Your task to perform on an android device: Check the settings for the Spotify app Image 0: 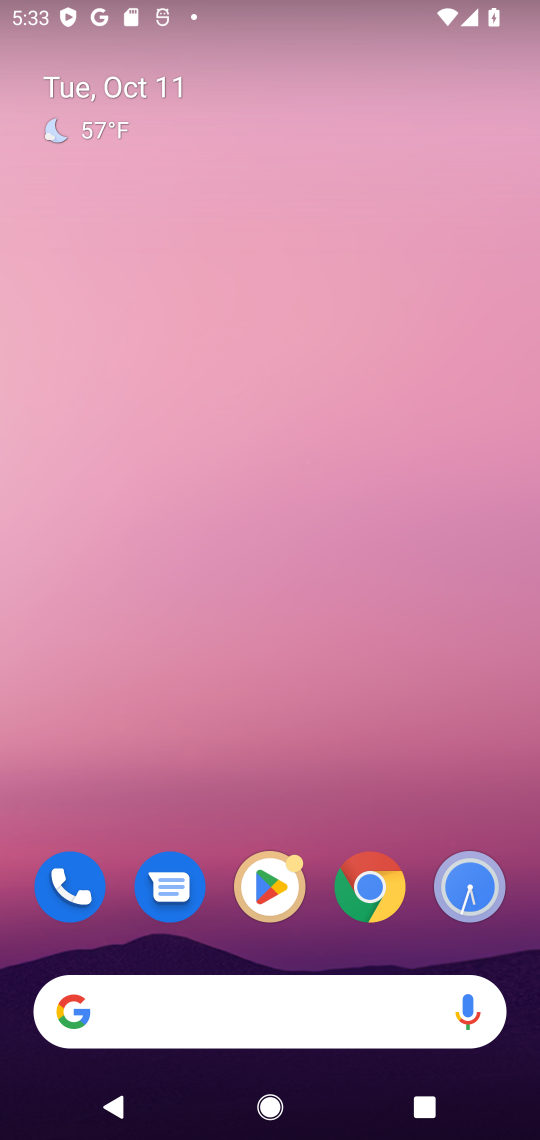
Step 0: drag from (199, 1112) to (194, 504)
Your task to perform on an android device: Check the settings for the Spotify app Image 1: 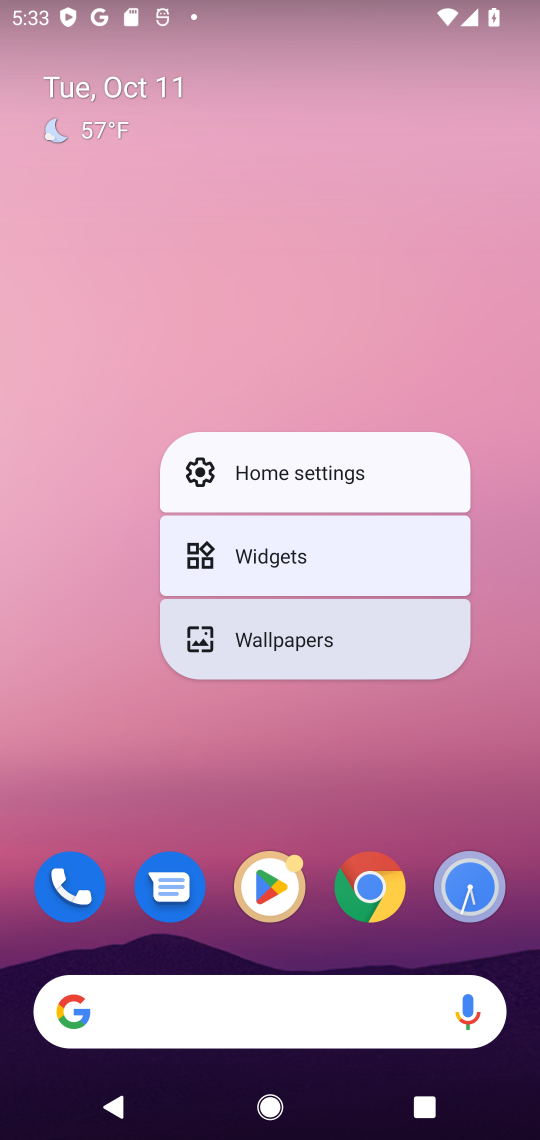
Step 1: click (135, 392)
Your task to perform on an android device: Check the settings for the Spotify app Image 2: 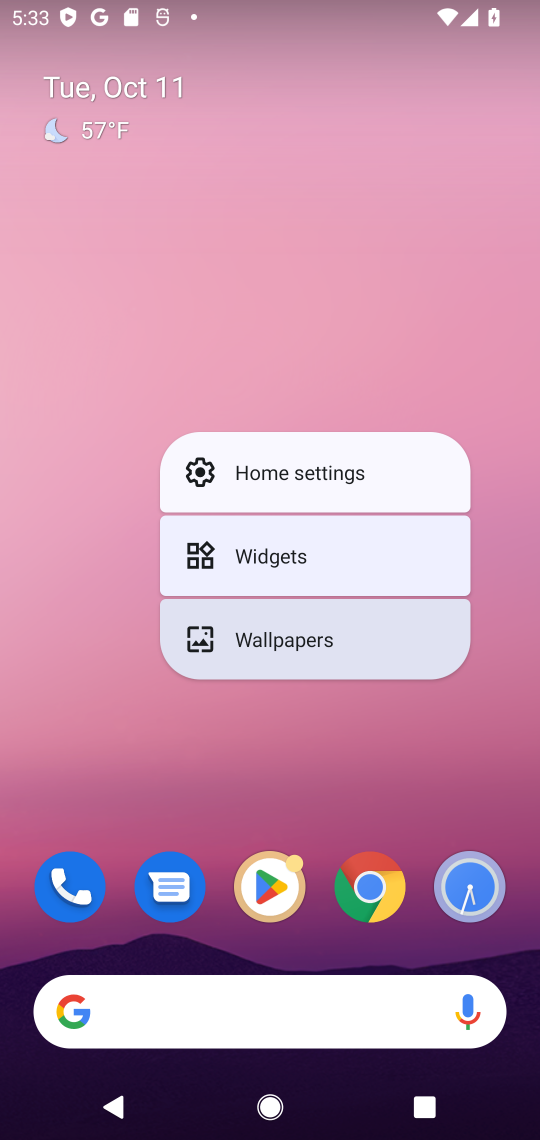
Step 2: click (136, 390)
Your task to perform on an android device: Check the settings for the Spotify app Image 3: 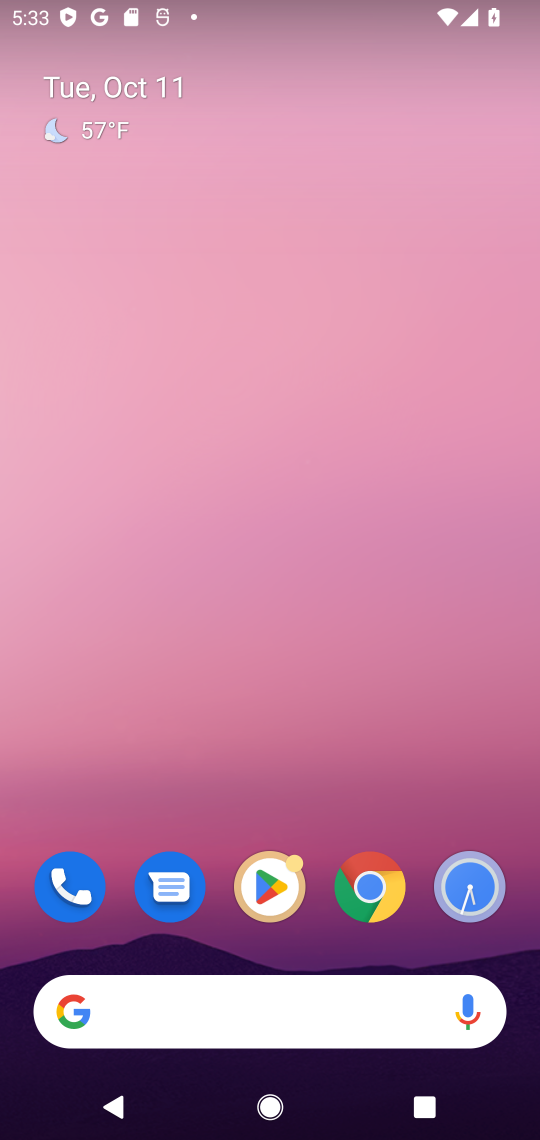
Step 3: click (271, 894)
Your task to perform on an android device: Check the settings for the Spotify app Image 4: 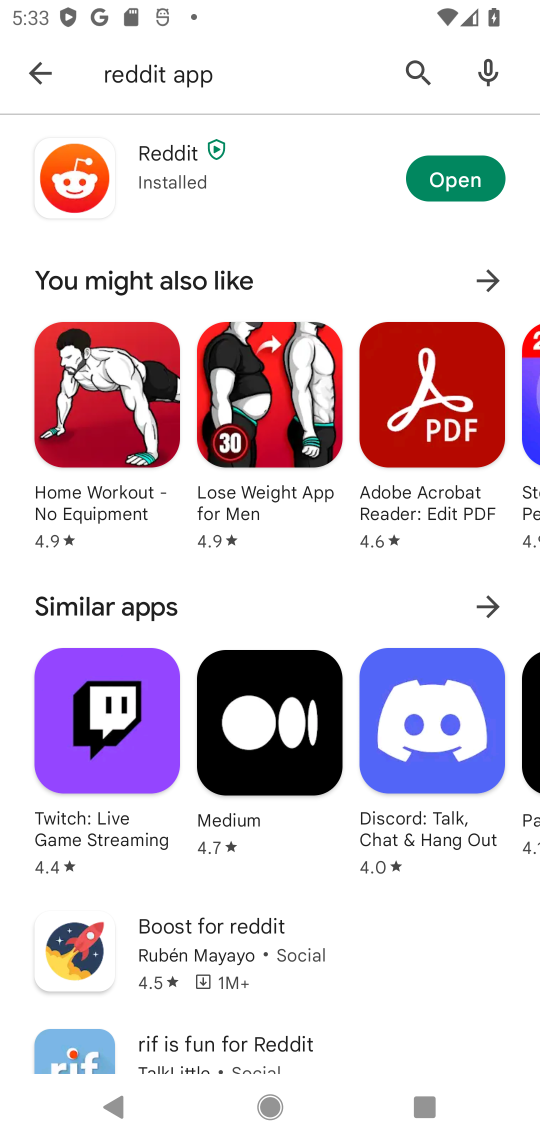
Step 4: click (35, 70)
Your task to perform on an android device: Check the settings for the Spotify app Image 5: 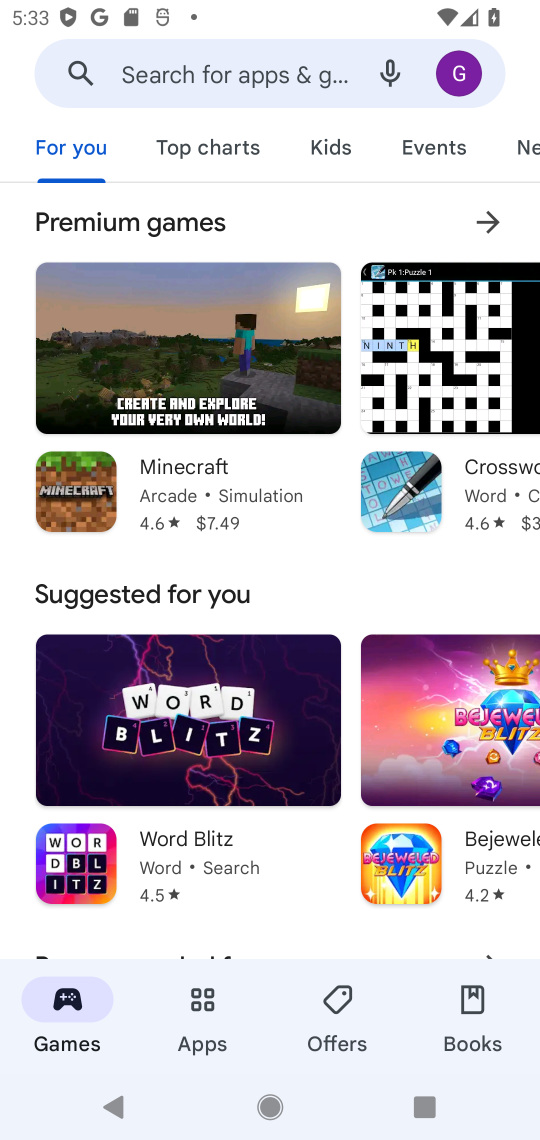
Step 5: click (262, 66)
Your task to perform on an android device: Check the settings for the Spotify app Image 6: 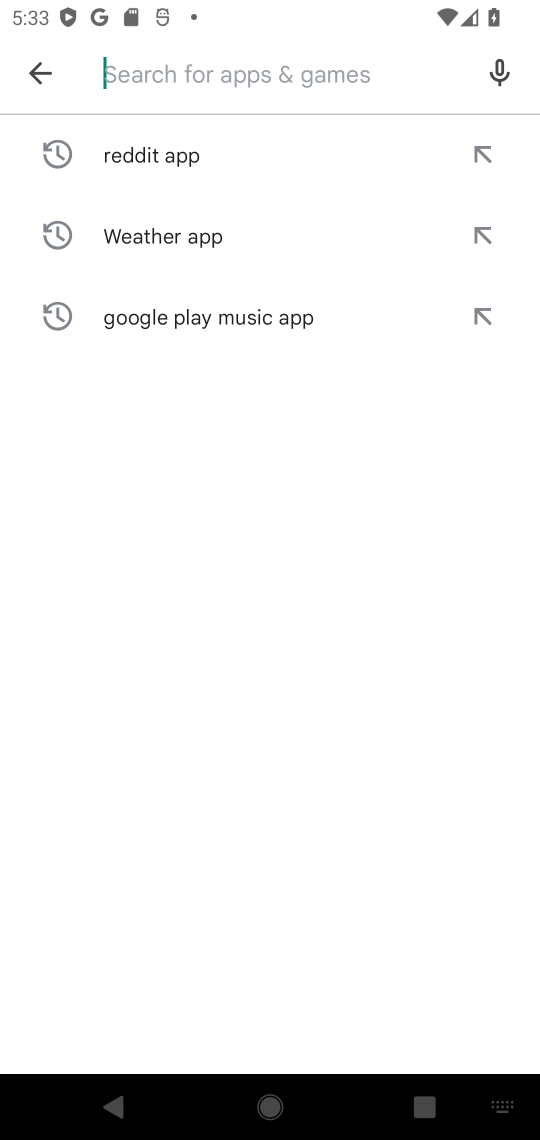
Step 6: type "spotify app"
Your task to perform on an android device: Check the settings for the Spotify app Image 7: 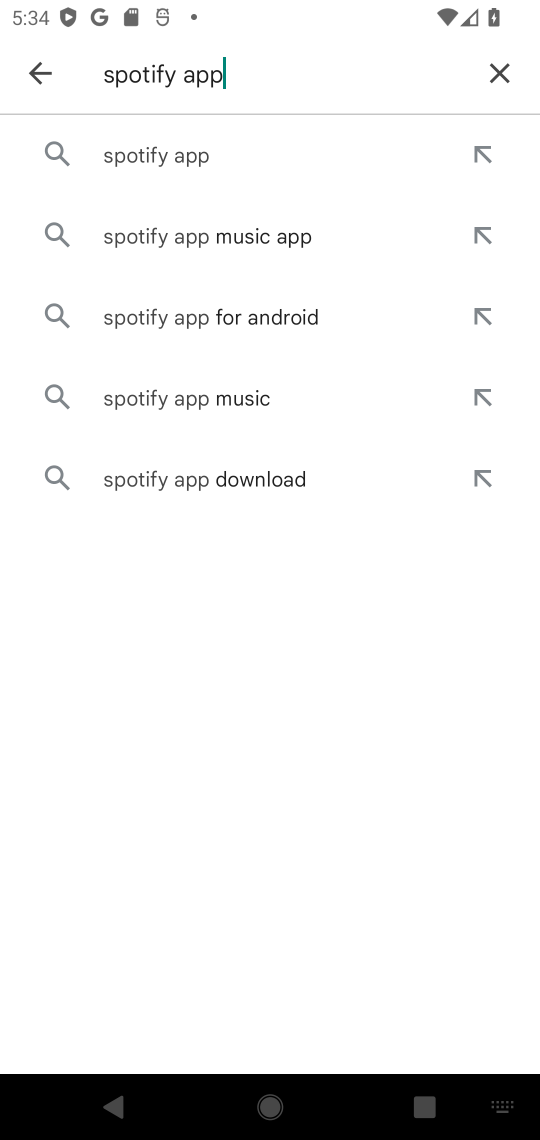
Step 7: click (119, 161)
Your task to perform on an android device: Check the settings for the Spotify app Image 8: 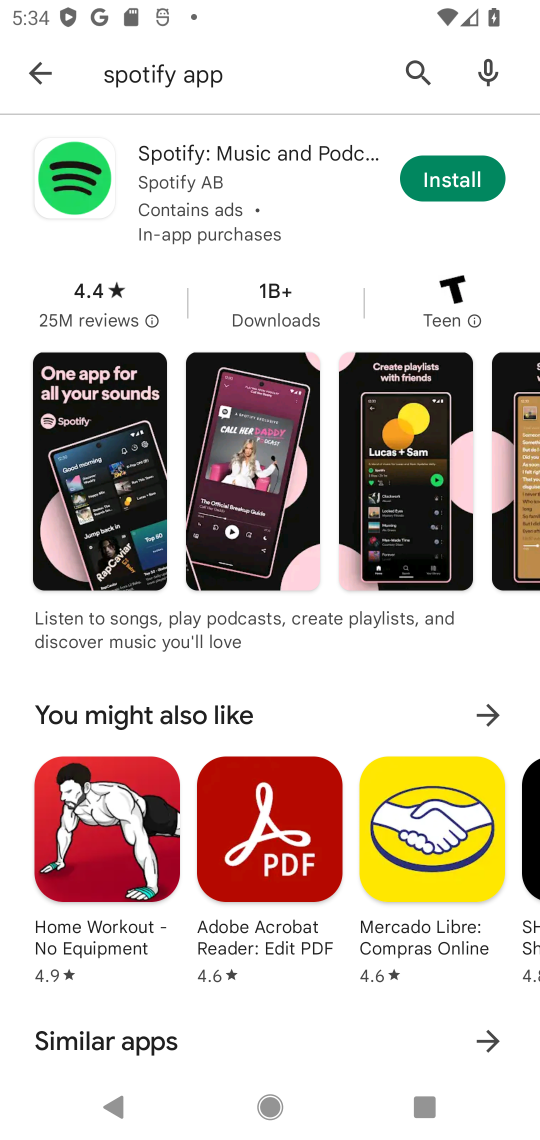
Step 8: click (447, 184)
Your task to perform on an android device: Check the settings for the Spotify app Image 9: 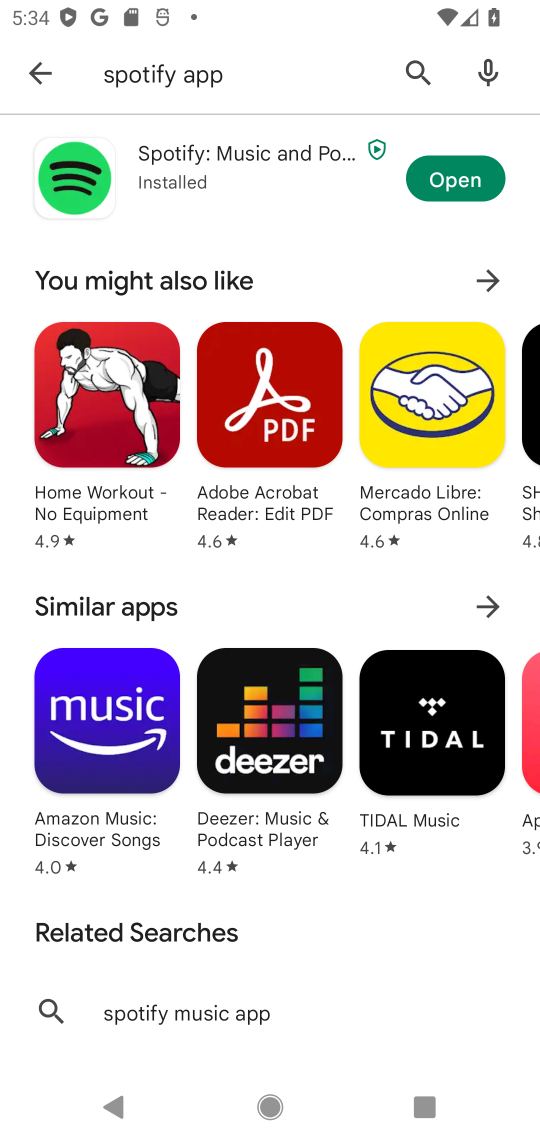
Step 9: click (449, 187)
Your task to perform on an android device: Check the settings for the Spotify app Image 10: 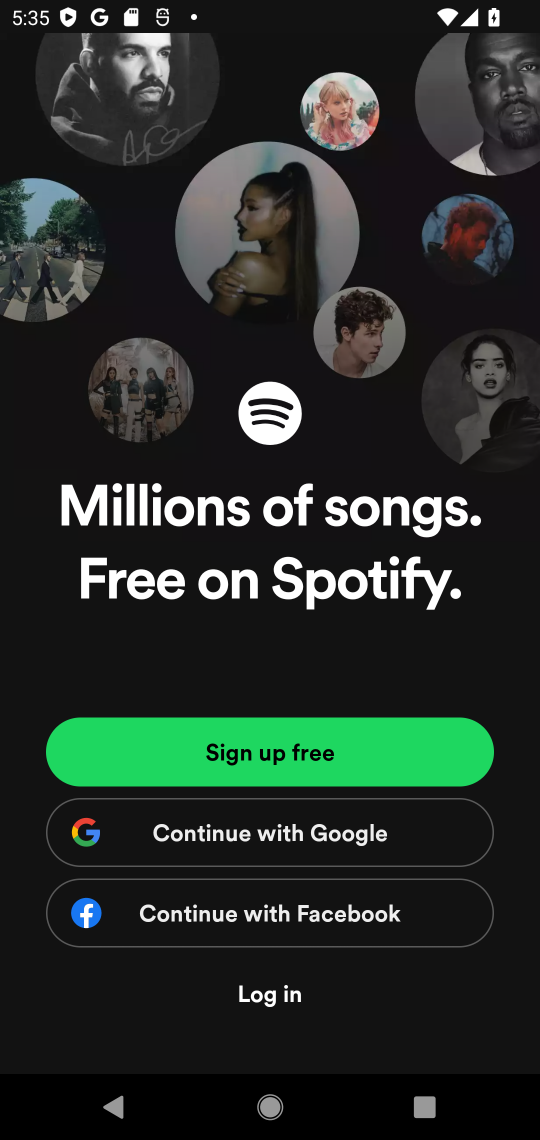
Step 10: click (321, 850)
Your task to perform on an android device: Check the settings for the Spotify app Image 11: 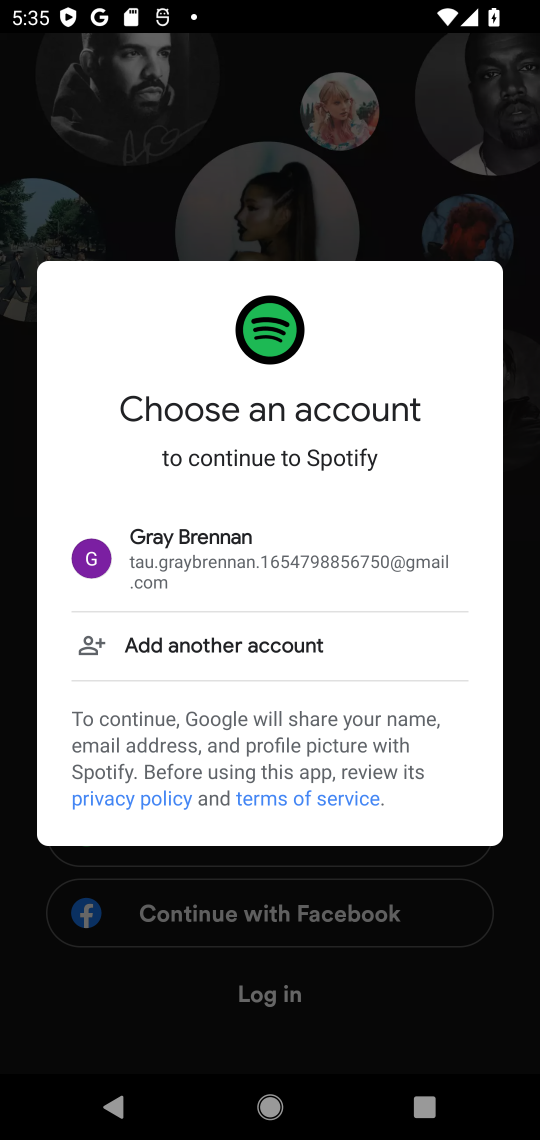
Step 11: click (277, 584)
Your task to perform on an android device: Check the settings for the Spotify app Image 12: 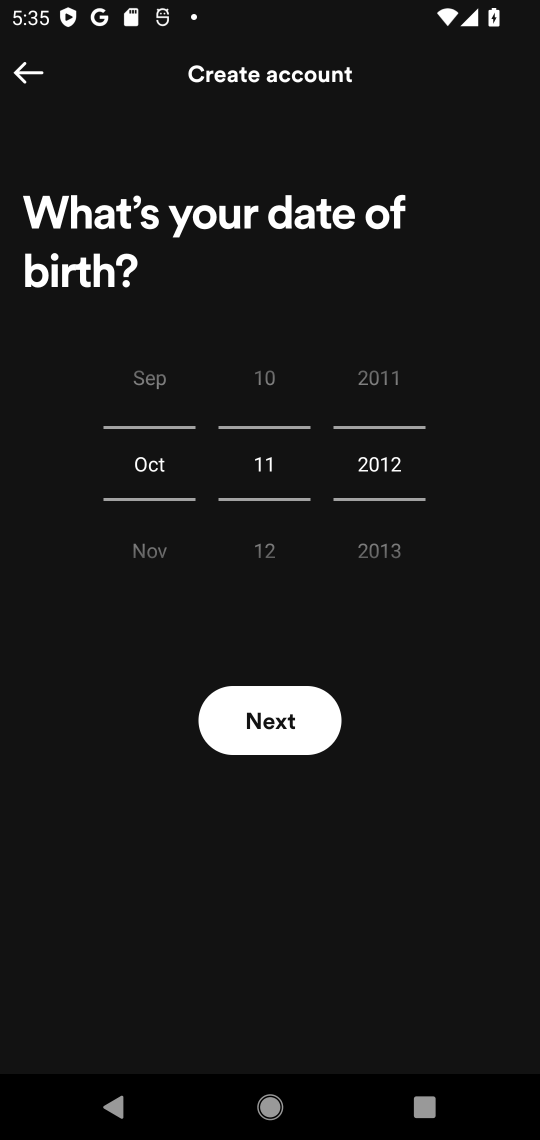
Step 12: click (277, 720)
Your task to perform on an android device: Check the settings for the Spotify app Image 13: 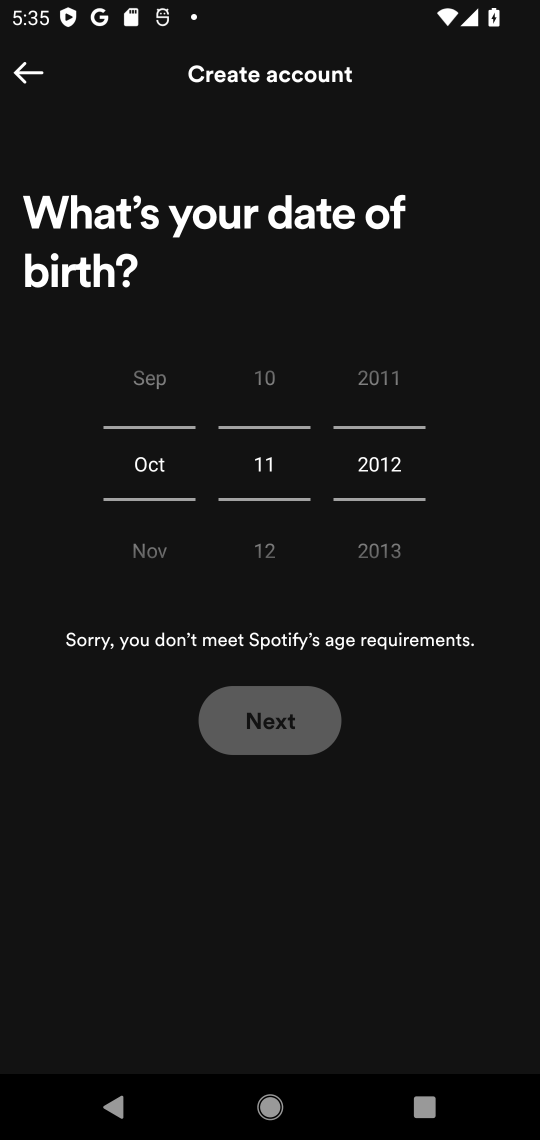
Step 13: click (277, 720)
Your task to perform on an android device: Check the settings for the Spotify app Image 14: 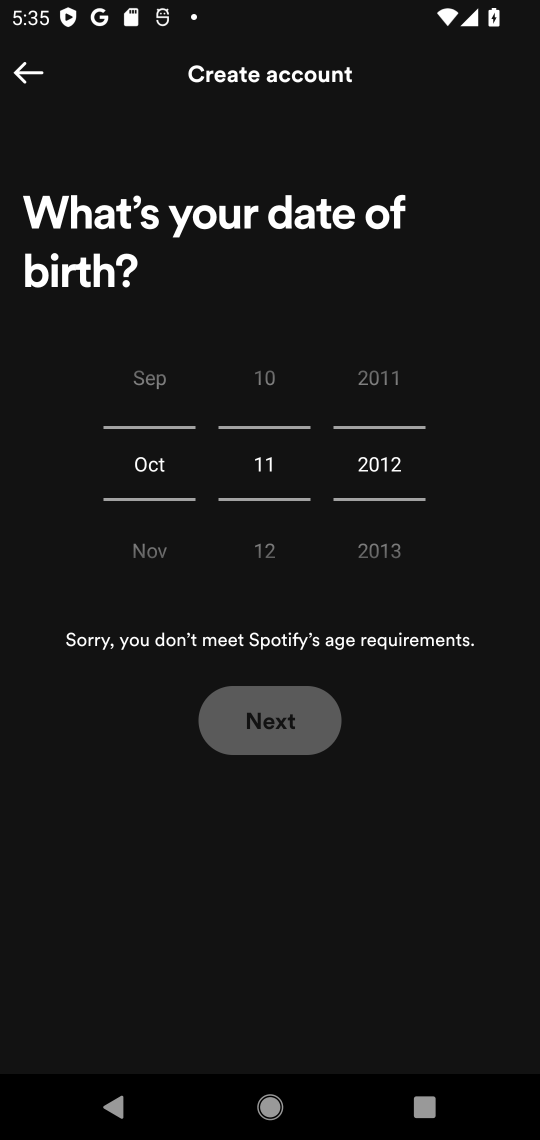
Step 14: click (277, 720)
Your task to perform on an android device: Check the settings for the Spotify app Image 15: 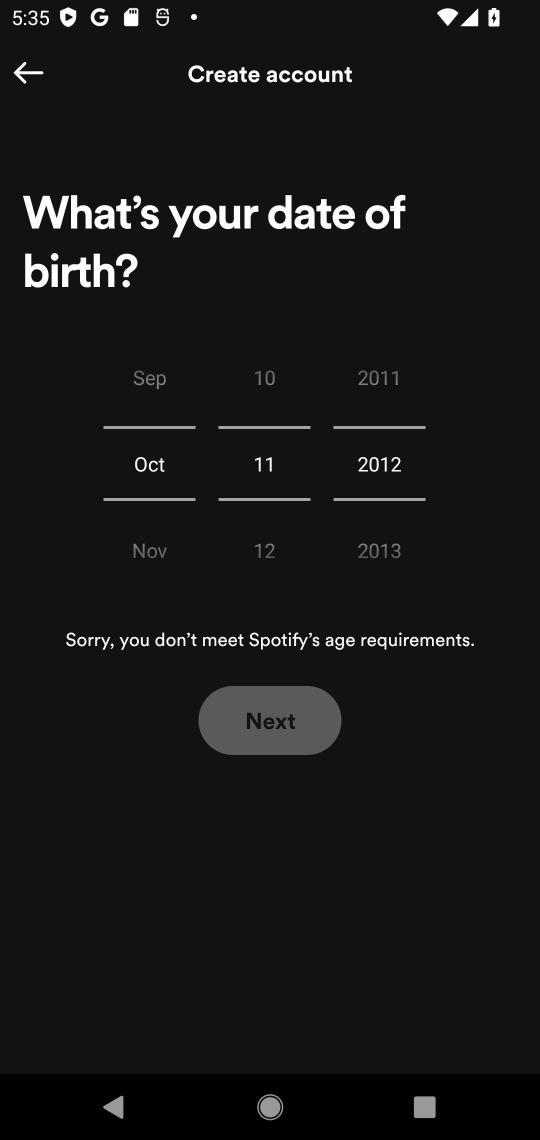
Step 15: click (276, 722)
Your task to perform on an android device: Check the settings for the Spotify app Image 16: 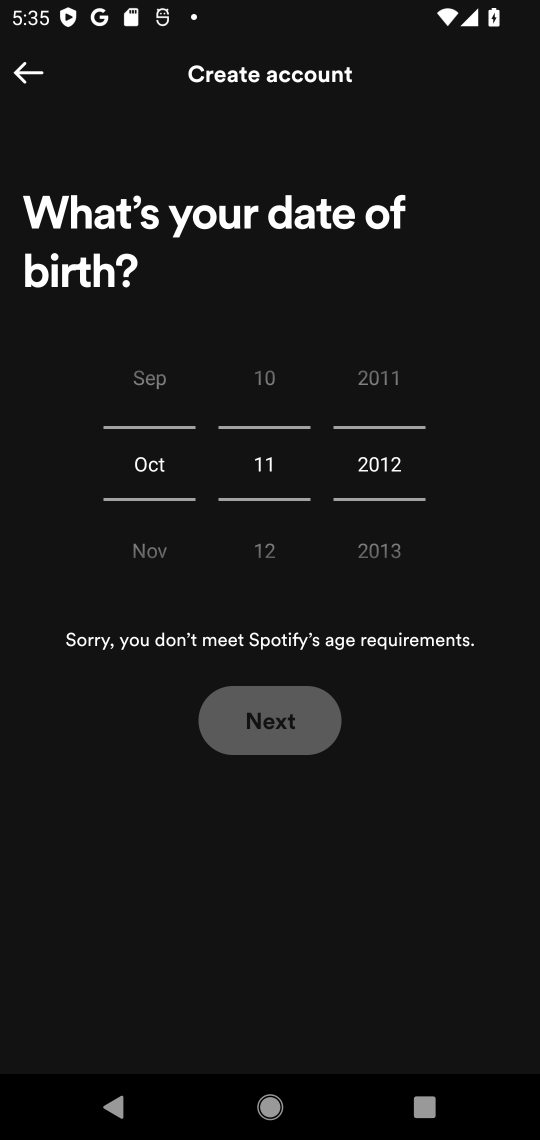
Step 16: click (274, 717)
Your task to perform on an android device: Check the settings for the Spotify app Image 17: 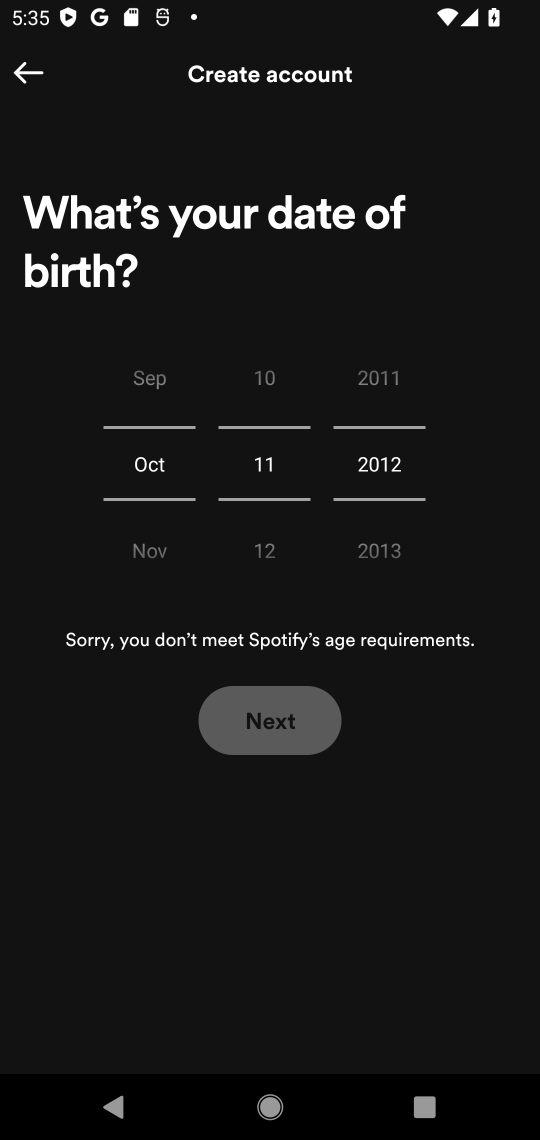
Step 17: click (257, 702)
Your task to perform on an android device: Check the settings for the Spotify app Image 18: 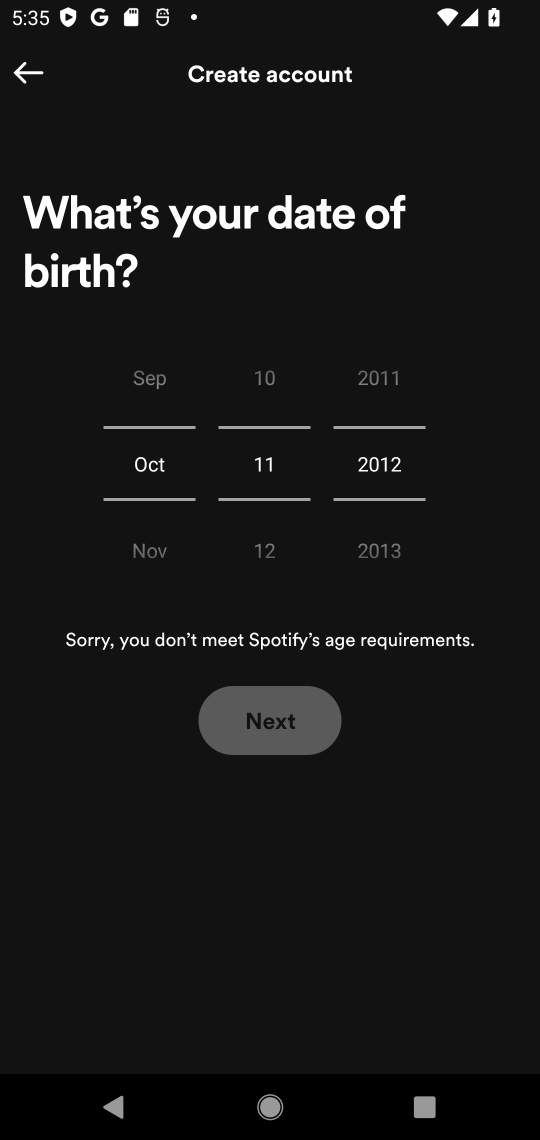
Step 18: task complete